Your task to perform on an android device: uninstall "Instagram" Image 0: 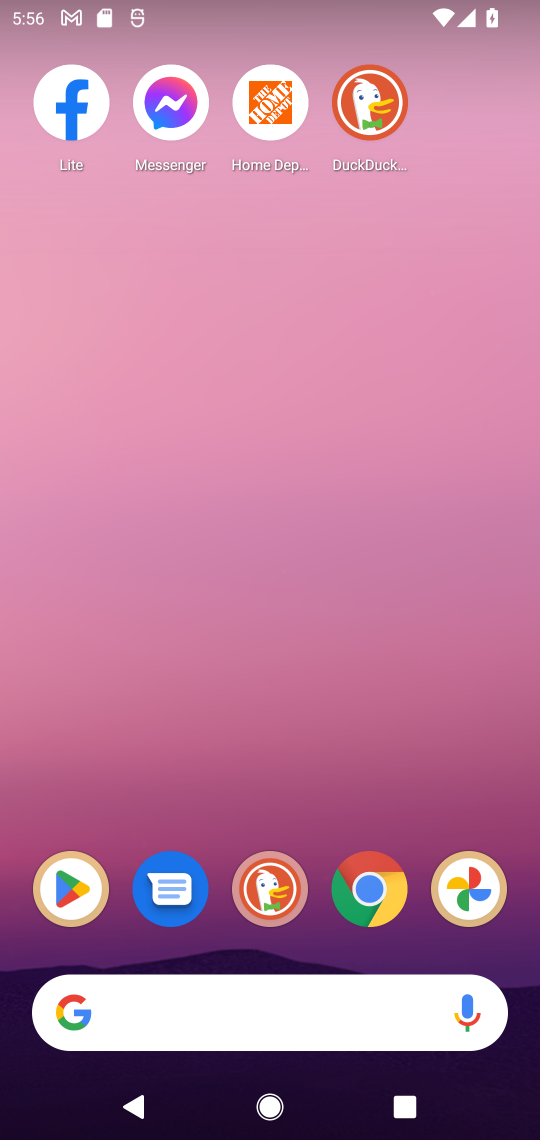
Step 0: drag from (277, 560) to (212, 94)
Your task to perform on an android device: uninstall "Instagram" Image 1: 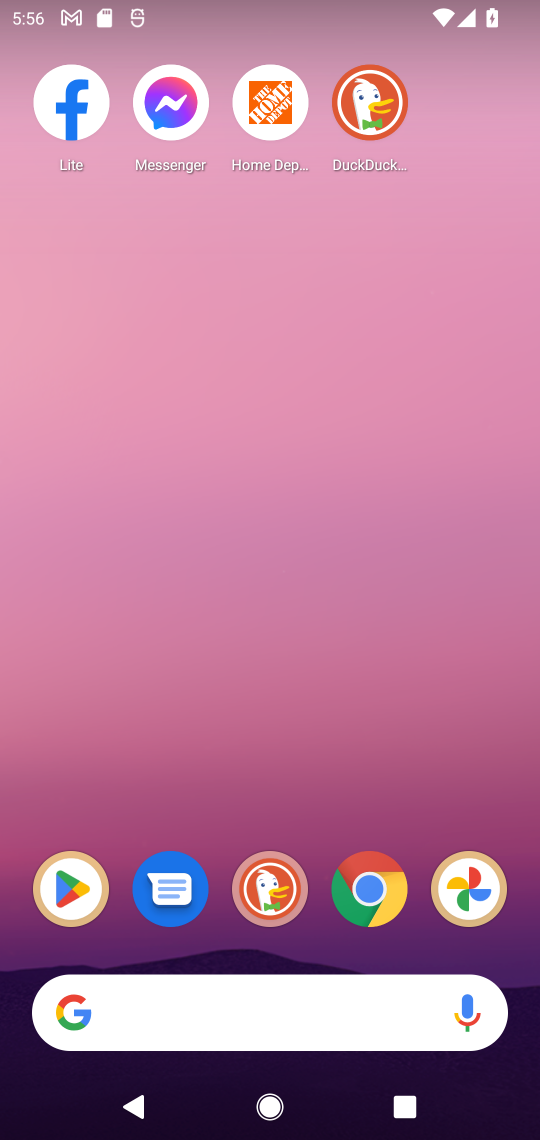
Step 1: drag from (305, 866) to (303, 307)
Your task to perform on an android device: uninstall "Instagram" Image 2: 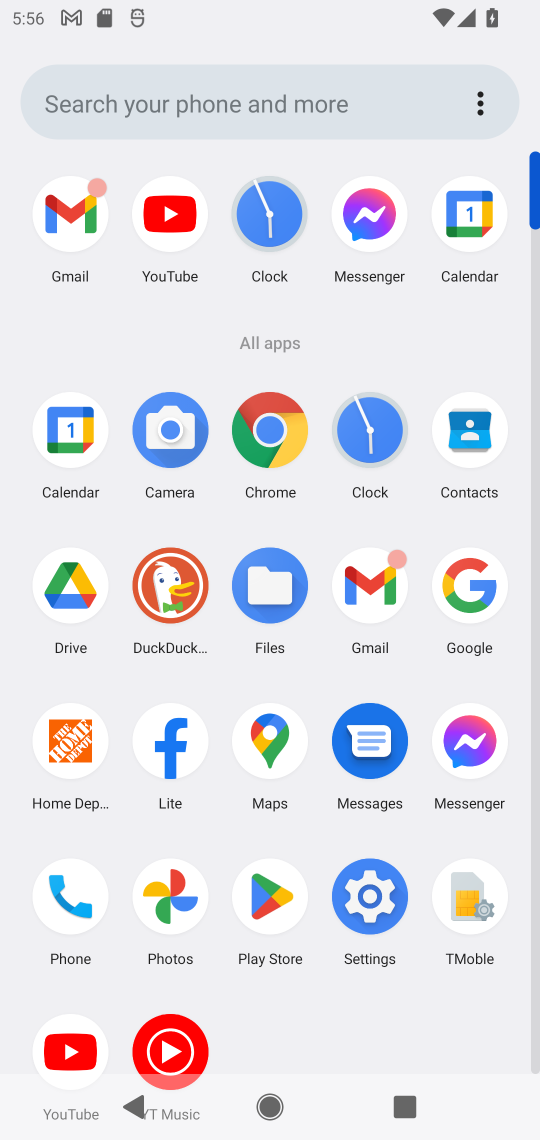
Step 2: click (271, 887)
Your task to perform on an android device: uninstall "Instagram" Image 3: 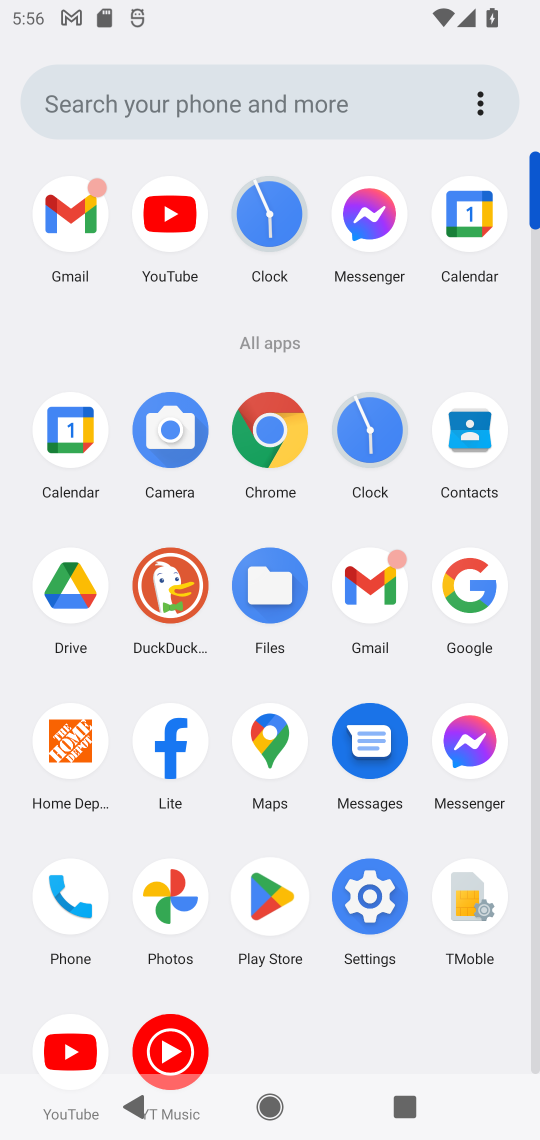
Step 3: click (276, 889)
Your task to perform on an android device: uninstall "Instagram" Image 4: 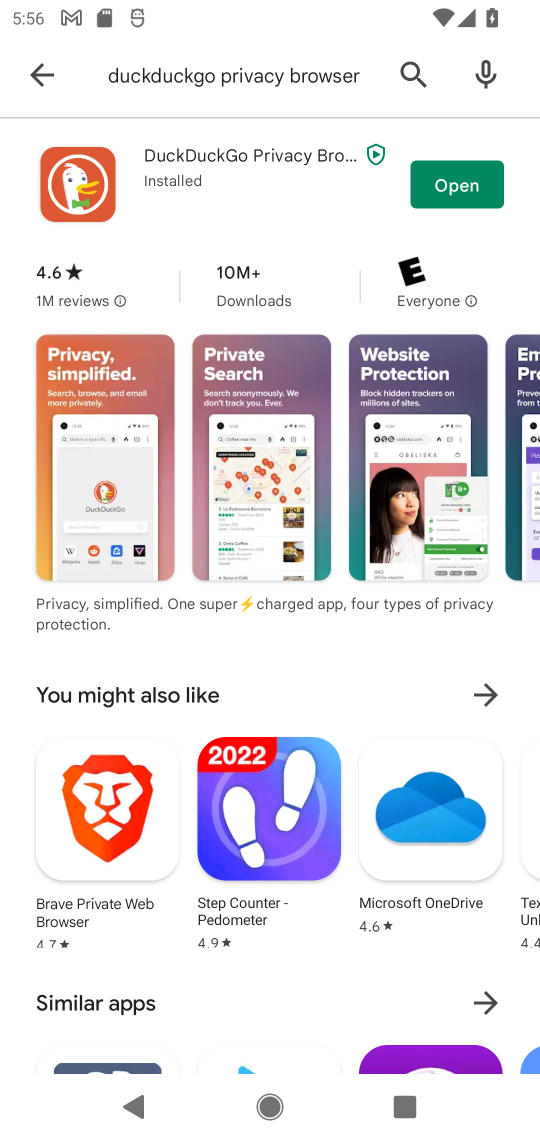
Step 4: click (277, 874)
Your task to perform on an android device: uninstall "Instagram" Image 5: 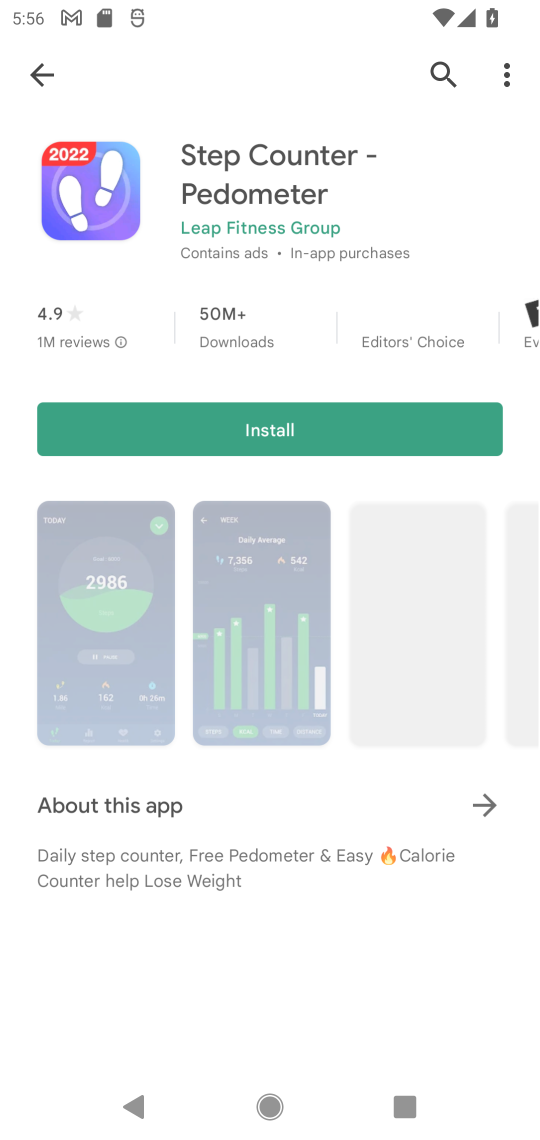
Step 5: click (32, 79)
Your task to perform on an android device: uninstall "Instagram" Image 6: 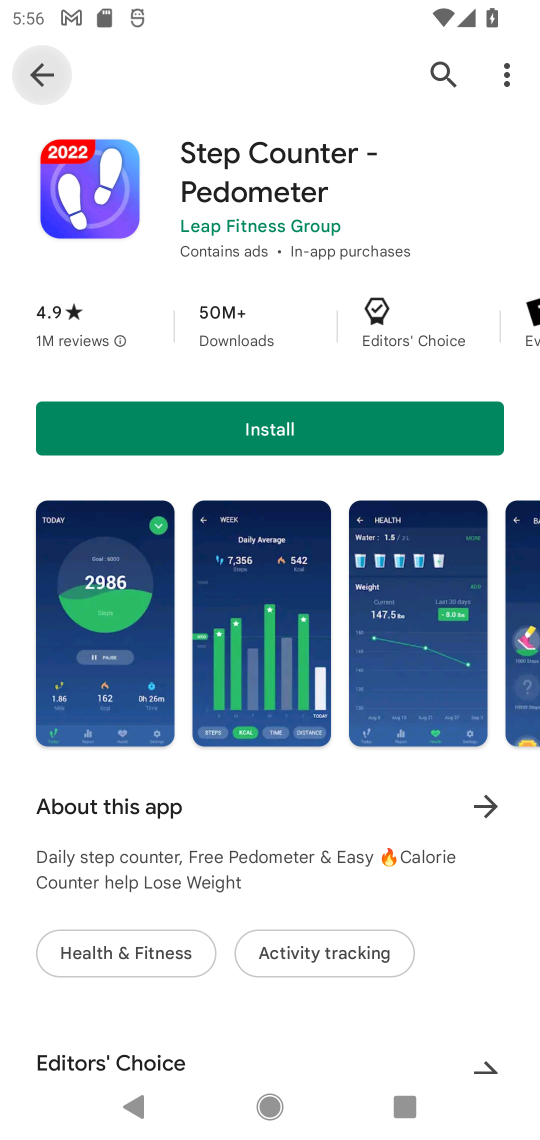
Step 6: click (181, 96)
Your task to perform on an android device: uninstall "Instagram" Image 7: 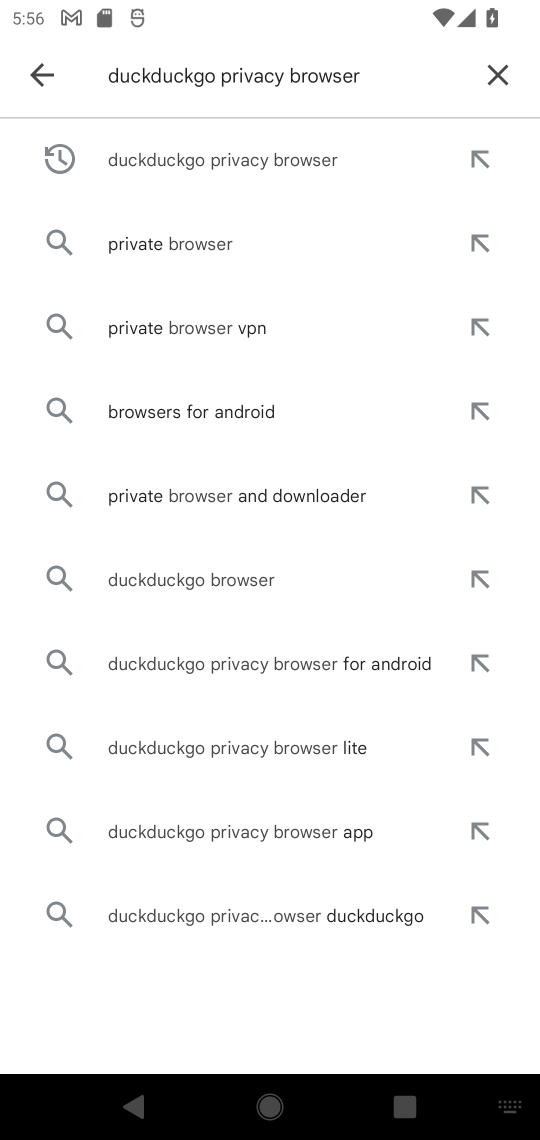
Step 7: click (183, 97)
Your task to perform on an android device: uninstall "Instagram" Image 8: 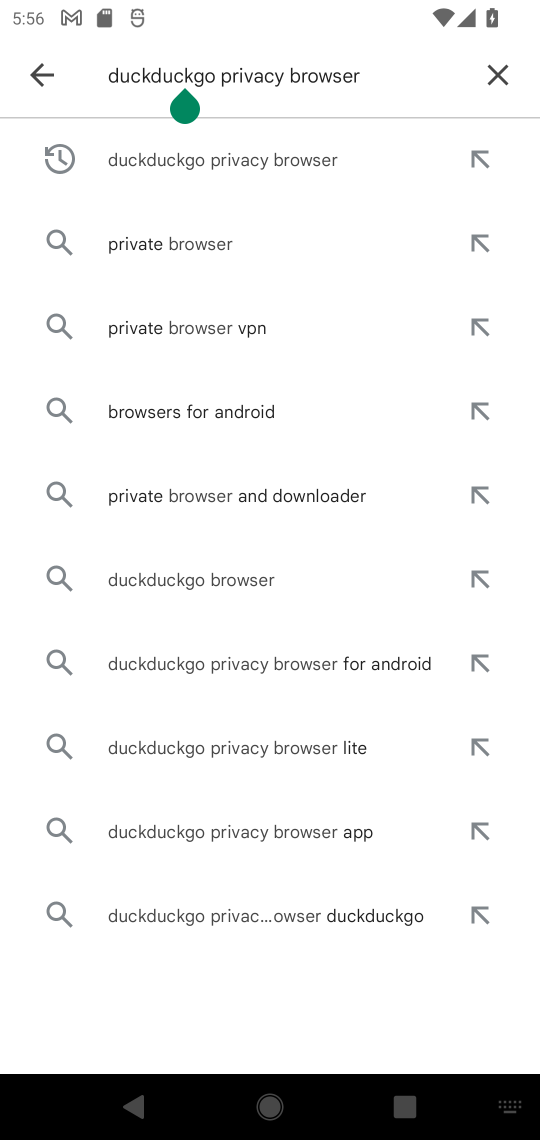
Step 8: click (480, 64)
Your task to perform on an android device: uninstall "Instagram" Image 9: 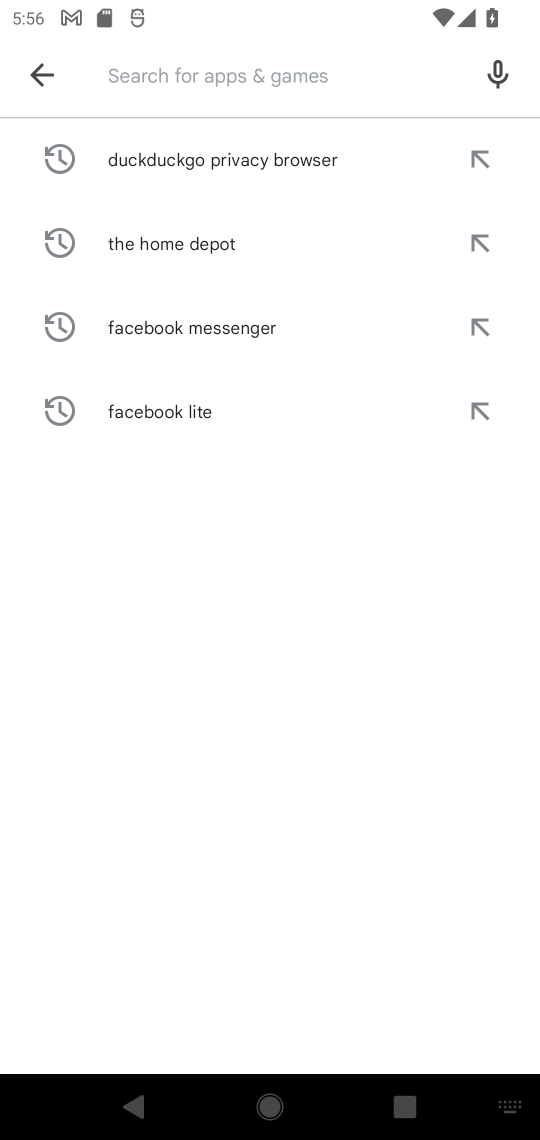
Step 9: click (112, 84)
Your task to perform on an android device: uninstall "Instagram" Image 10: 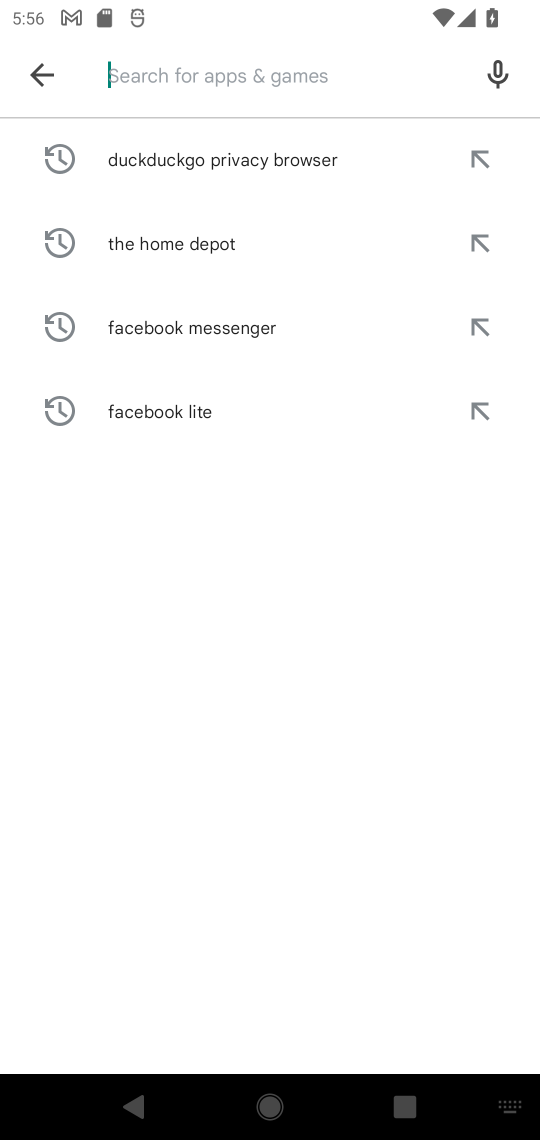
Step 10: type "instagram"
Your task to perform on an android device: uninstall "Instagram" Image 11: 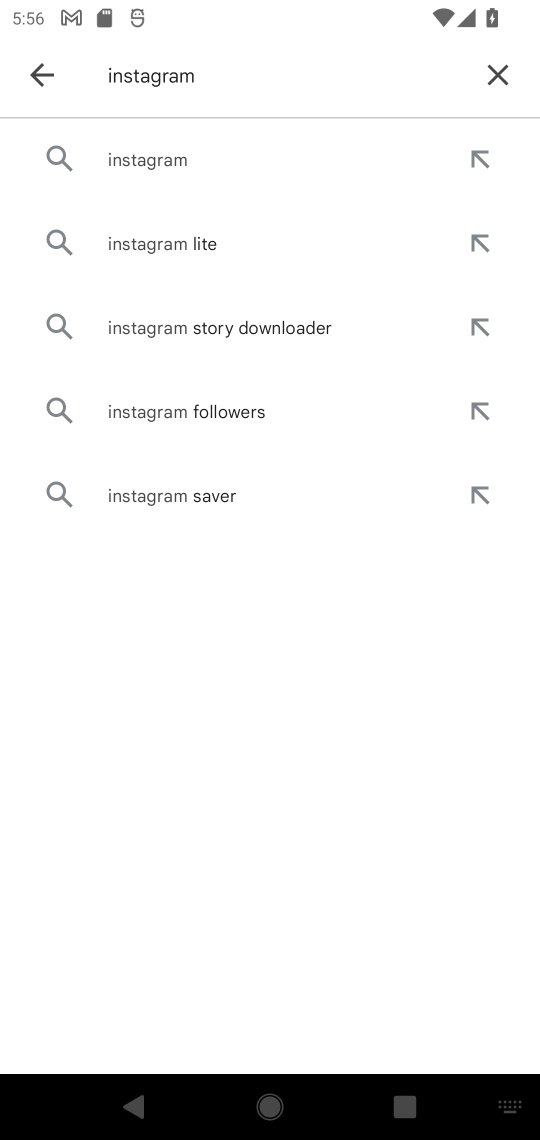
Step 11: click (146, 152)
Your task to perform on an android device: uninstall "Instagram" Image 12: 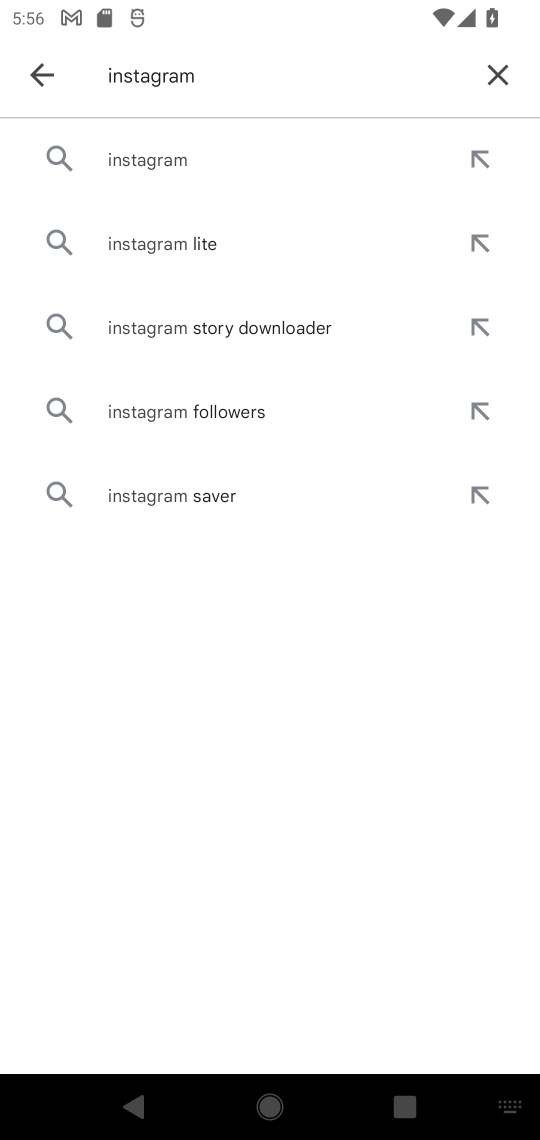
Step 12: click (144, 153)
Your task to perform on an android device: uninstall "Instagram" Image 13: 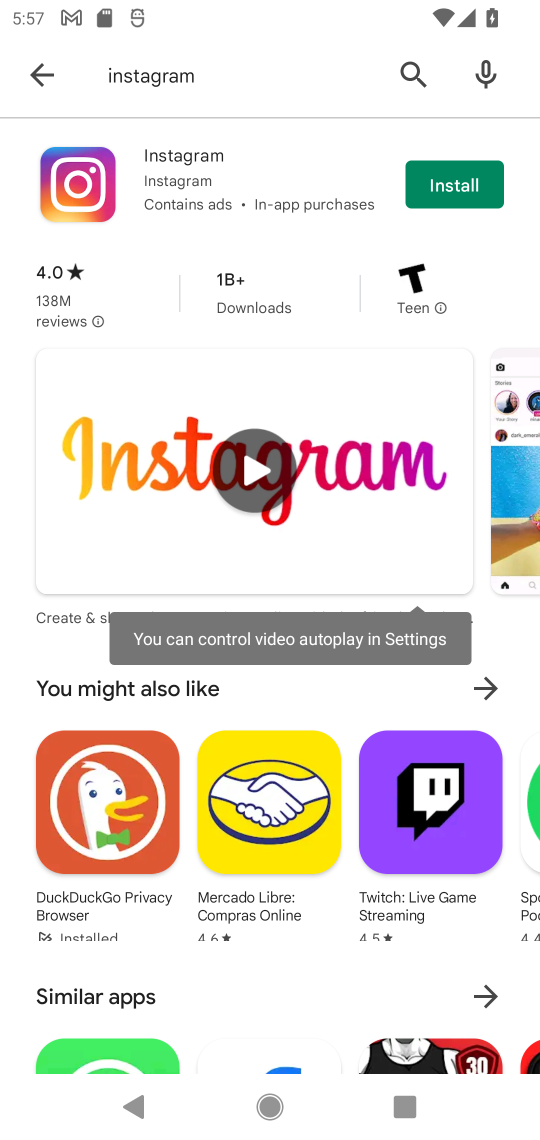
Step 13: task complete